Your task to perform on an android device: see sites visited before in the chrome app Image 0: 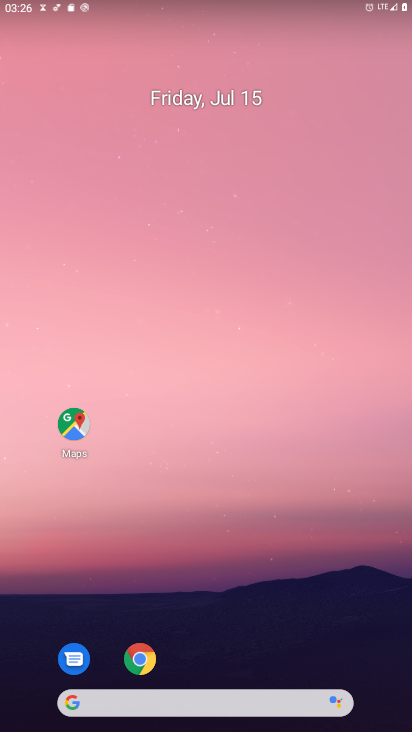
Step 0: drag from (273, 598) to (266, 207)
Your task to perform on an android device: see sites visited before in the chrome app Image 1: 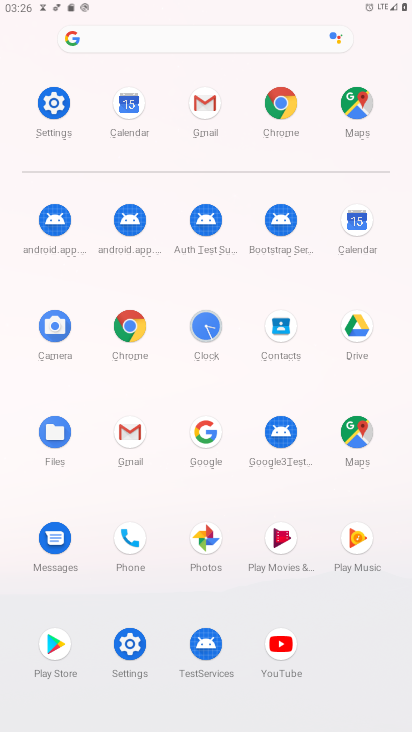
Step 1: click (264, 93)
Your task to perform on an android device: see sites visited before in the chrome app Image 2: 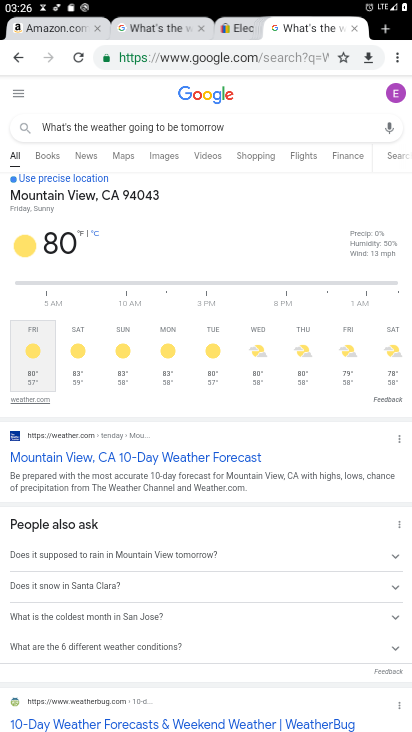
Step 2: click (405, 45)
Your task to perform on an android device: see sites visited before in the chrome app Image 3: 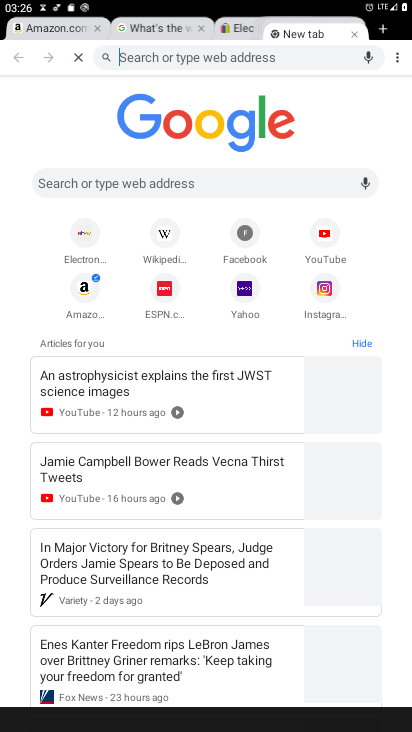
Step 3: click (394, 52)
Your task to perform on an android device: see sites visited before in the chrome app Image 4: 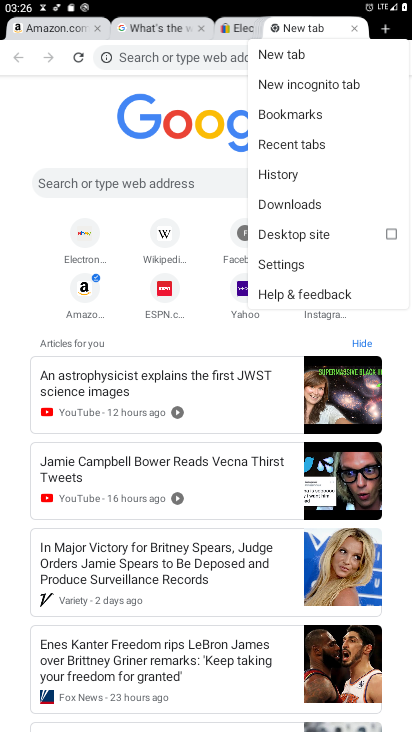
Step 4: click (294, 166)
Your task to perform on an android device: see sites visited before in the chrome app Image 5: 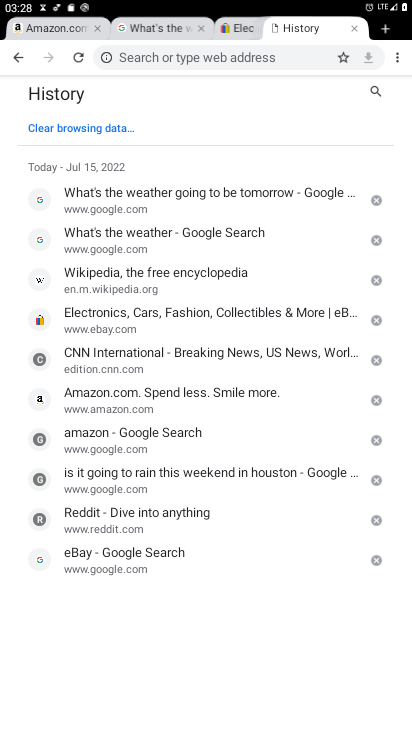
Step 5: task complete